Your task to perform on an android device: check storage Image 0: 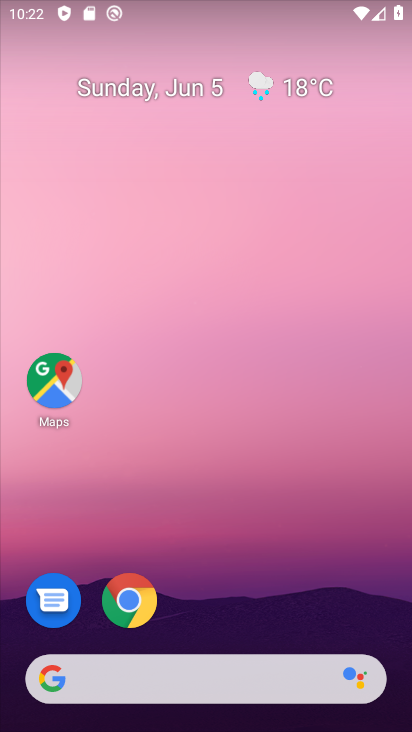
Step 0: drag from (212, 640) to (212, 197)
Your task to perform on an android device: check storage Image 1: 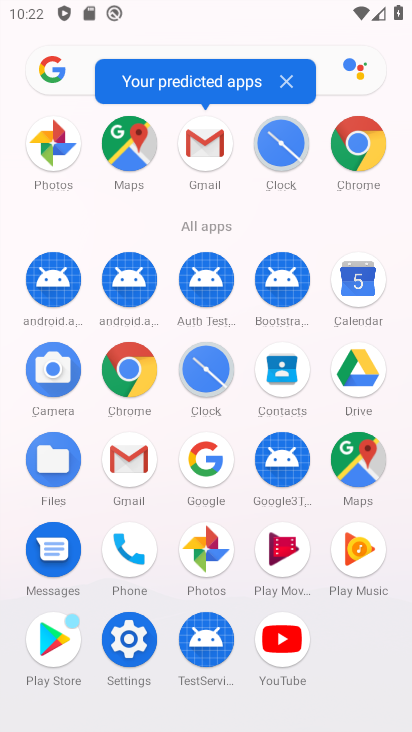
Step 1: click (137, 632)
Your task to perform on an android device: check storage Image 2: 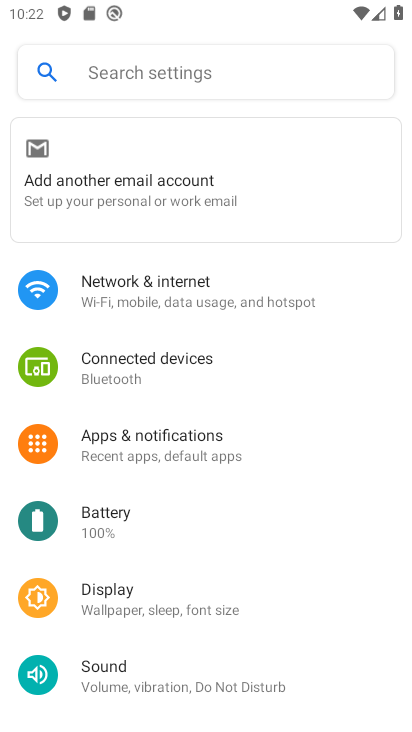
Step 2: drag from (220, 554) to (250, 371)
Your task to perform on an android device: check storage Image 3: 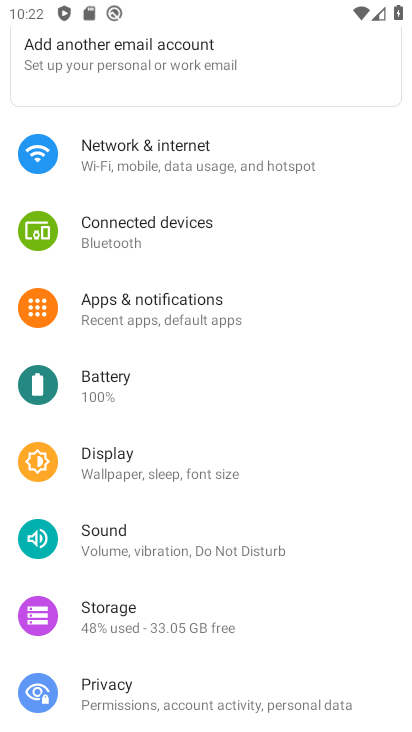
Step 3: click (149, 623)
Your task to perform on an android device: check storage Image 4: 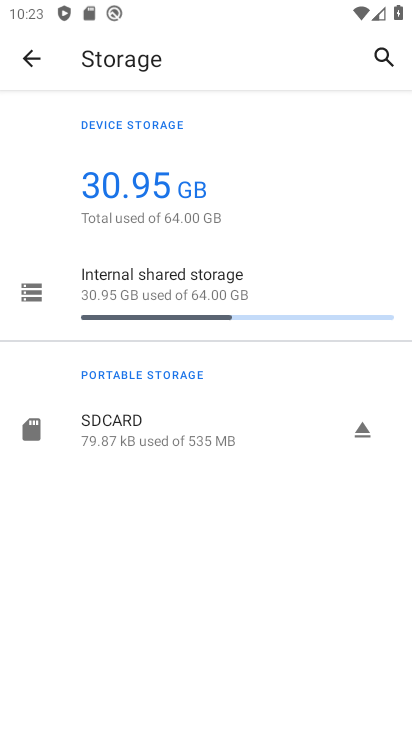
Step 4: task complete